Your task to perform on an android device: Go to Google Image 0: 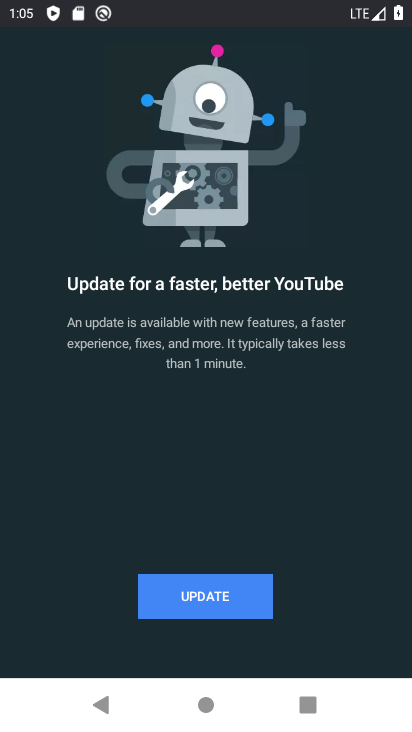
Step 0: press home button
Your task to perform on an android device: Go to Google Image 1: 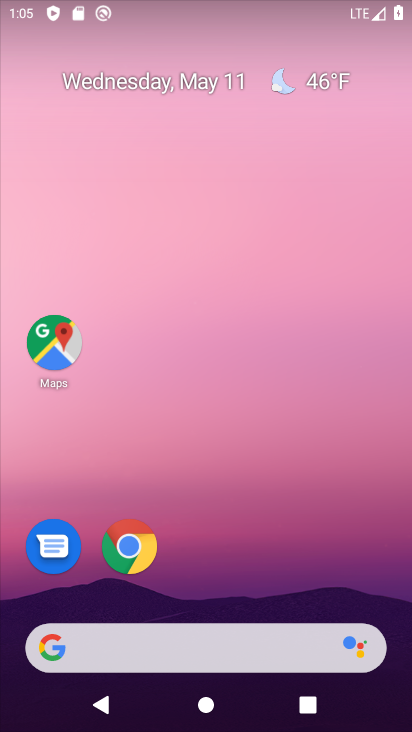
Step 1: drag from (248, 653) to (261, 205)
Your task to perform on an android device: Go to Google Image 2: 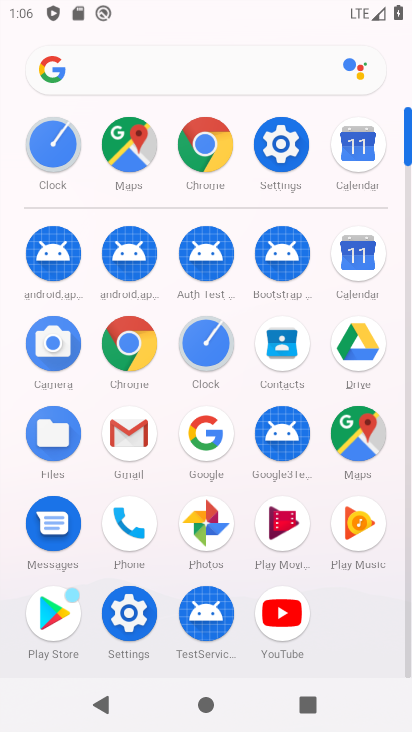
Step 2: click (66, 66)
Your task to perform on an android device: Go to Google Image 3: 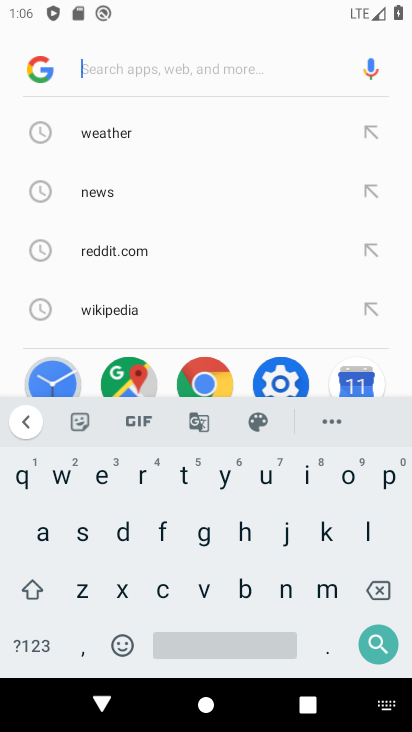
Step 3: click (36, 71)
Your task to perform on an android device: Go to Google Image 4: 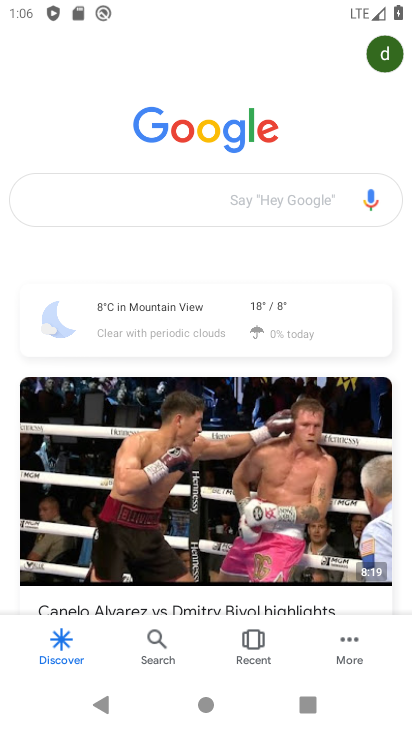
Step 4: task complete